Your task to perform on an android device: Open the map Image 0: 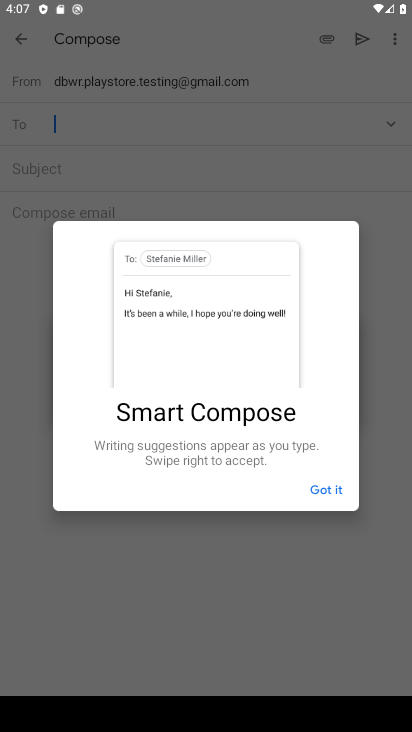
Step 0: press home button
Your task to perform on an android device: Open the map Image 1: 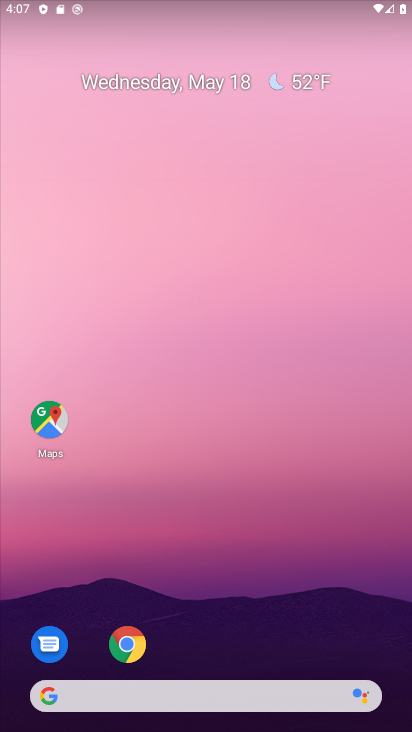
Step 1: drag from (239, 680) to (142, 157)
Your task to perform on an android device: Open the map Image 2: 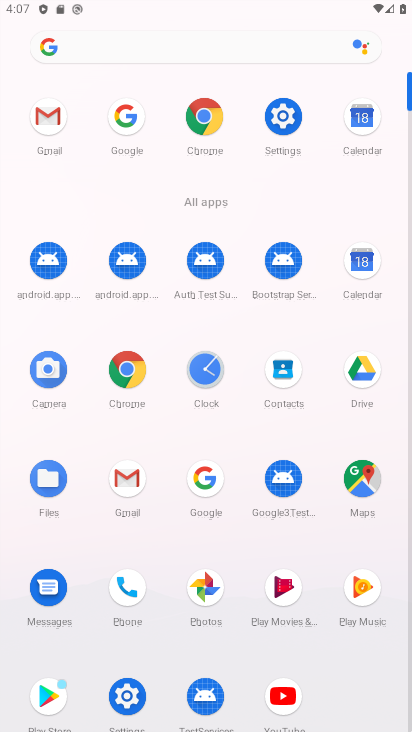
Step 2: click (352, 472)
Your task to perform on an android device: Open the map Image 3: 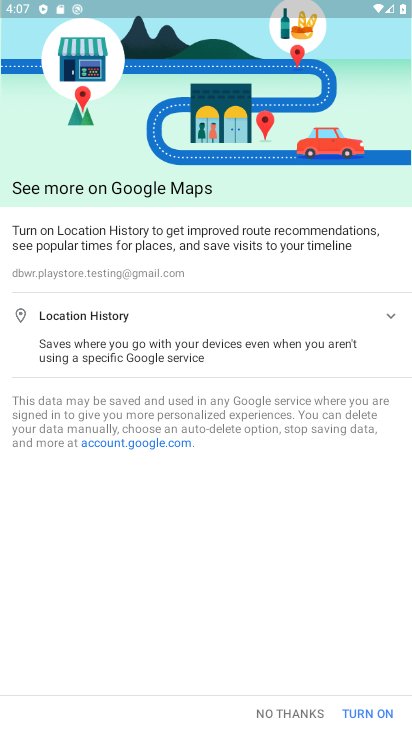
Step 3: click (373, 708)
Your task to perform on an android device: Open the map Image 4: 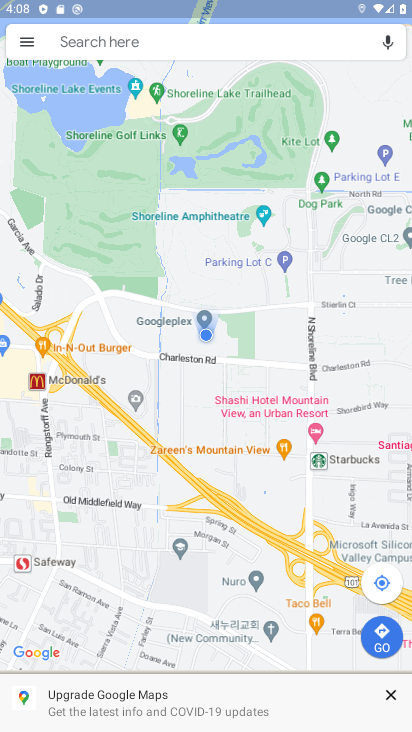
Step 4: task complete